Your task to perform on an android device: Find coffee shops on Maps Image 0: 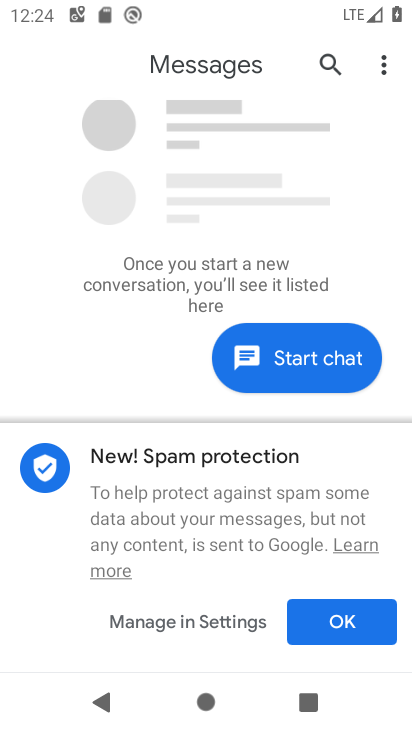
Step 0: press home button
Your task to perform on an android device: Find coffee shops on Maps Image 1: 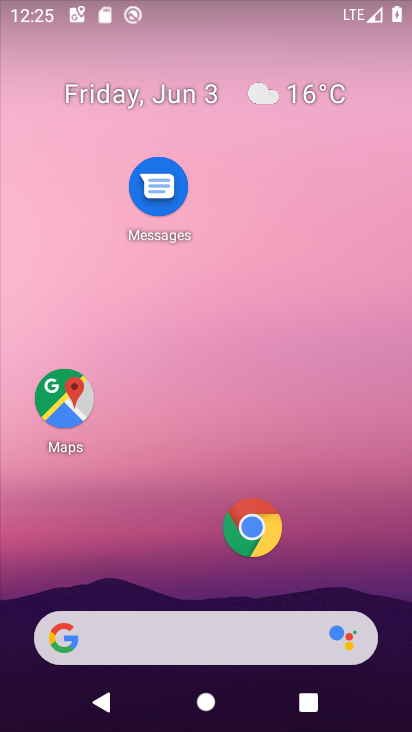
Step 1: click (61, 393)
Your task to perform on an android device: Find coffee shops on Maps Image 2: 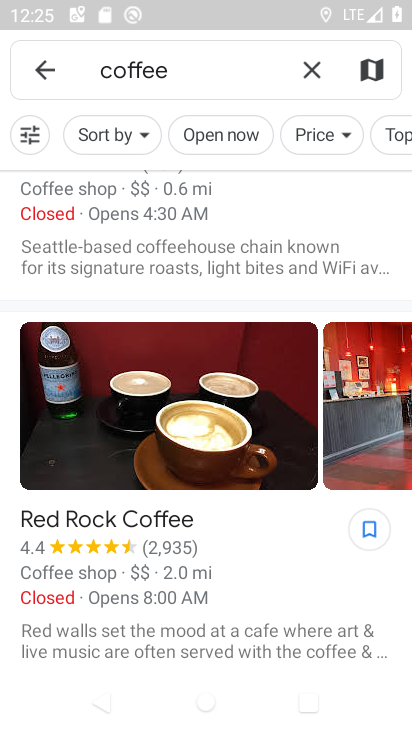
Step 2: task complete